Your task to perform on an android device: When is my next meeting? Image 0: 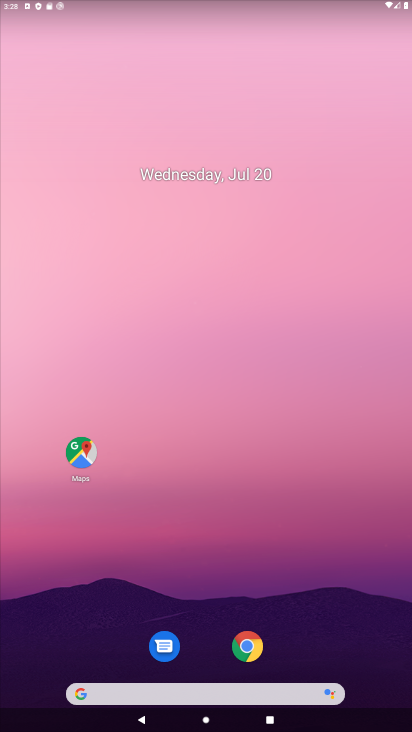
Step 0: drag from (195, 629) to (195, 153)
Your task to perform on an android device: When is my next meeting? Image 1: 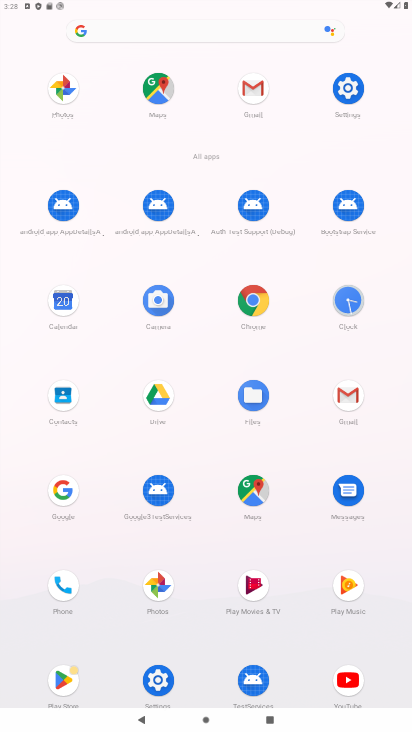
Step 1: click (61, 309)
Your task to perform on an android device: When is my next meeting? Image 2: 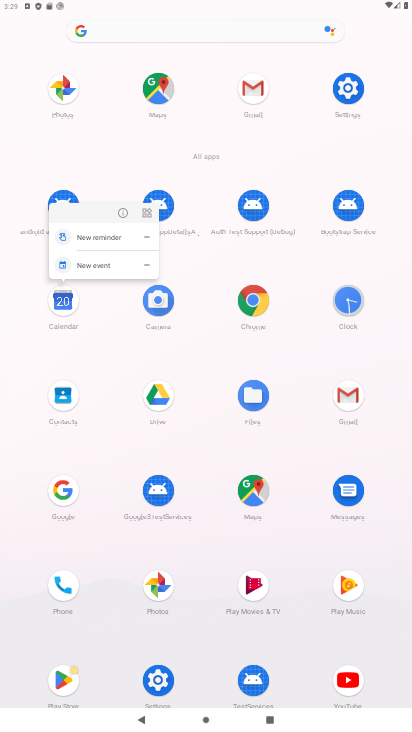
Step 2: click (59, 321)
Your task to perform on an android device: When is my next meeting? Image 3: 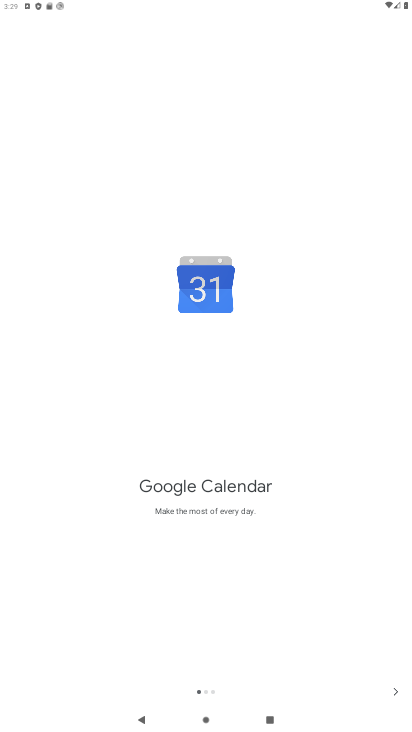
Step 3: click (392, 691)
Your task to perform on an android device: When is my next meeting? Image 4: 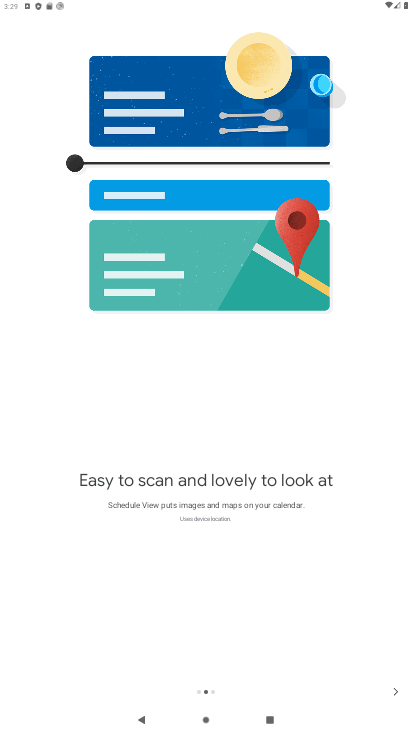
Step 4: click (393, 689)
Your task to perform on an android device: When is my next meeting? Image 5: 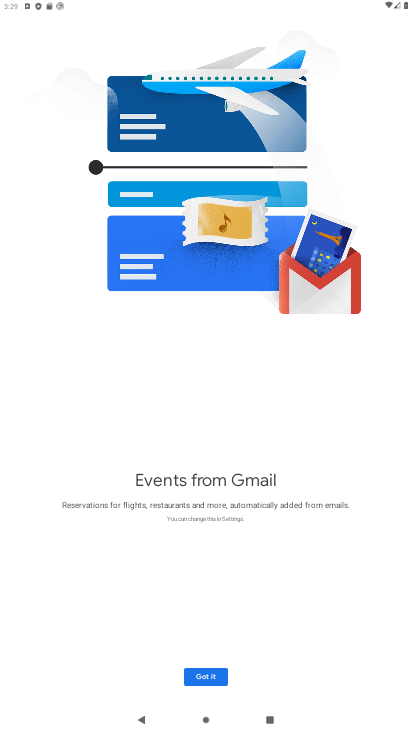
Step 5: click (224, 667)
Your task to perform on an android device: When is my next meeting? Image 6: 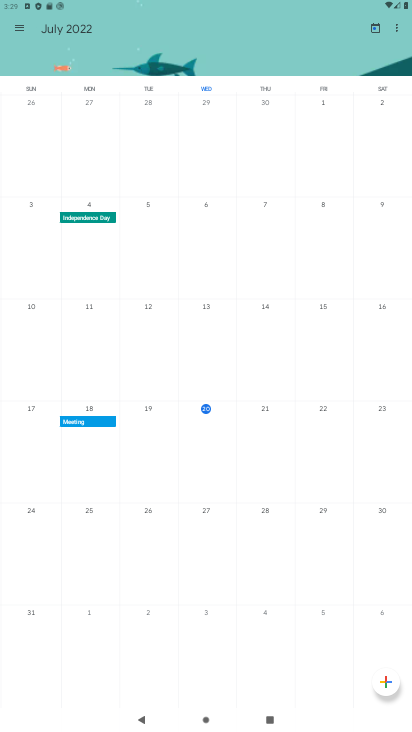
Step 6: click (96, 28)
Your task to perform on an android device: When is my next meeting? Image 7: 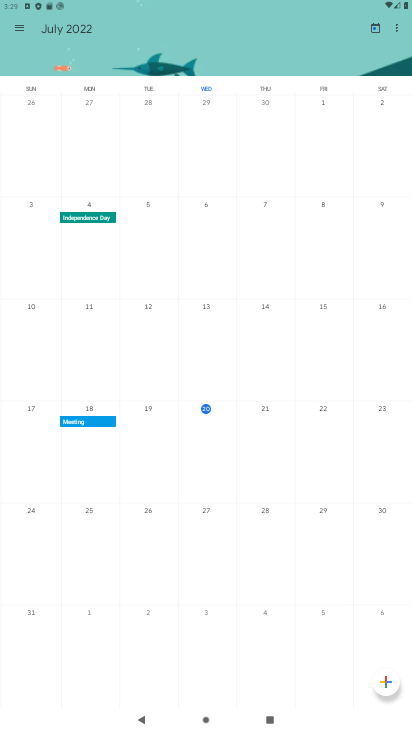
Step 7: drag from (283, 534) to (282, 305)
Your task to perform on an android device: When is my next meeting? Image 8: 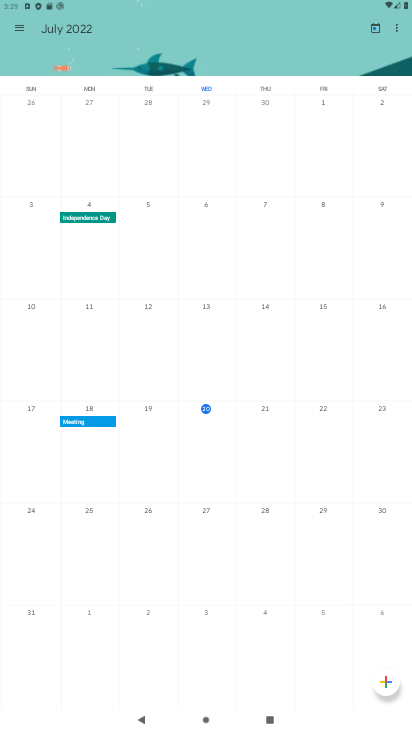
Step 8: click (306, 351)
Your task to perform on an android device: When is my next meeting? Image 9: 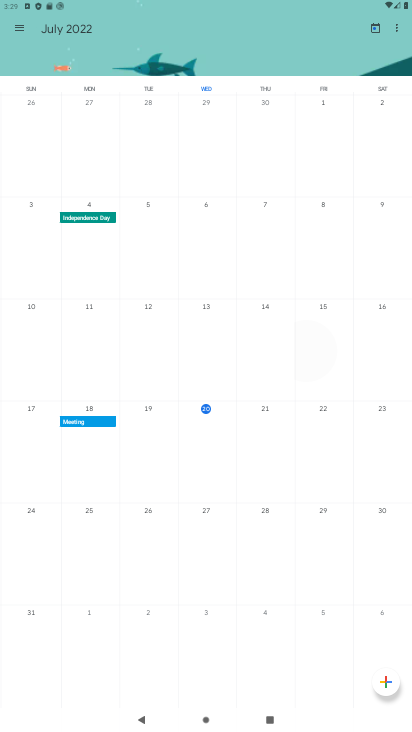
Step 9: task complete